Your task to perform on an android device: Set the phone to "Do not disturb". Image 0: 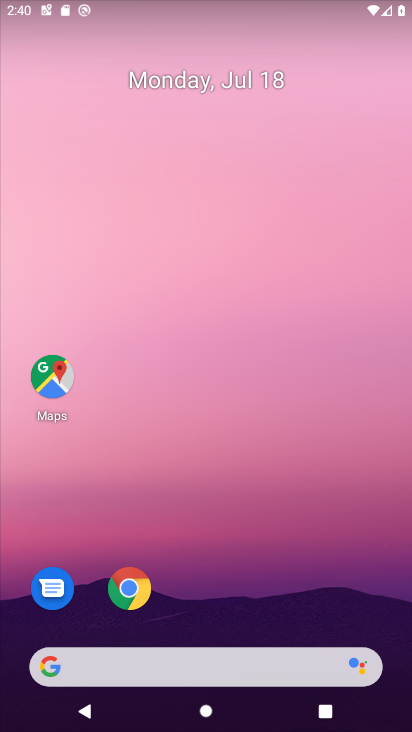
Step 0: drag from (279, 616) to (212, 117)
Your task to perform on an android device: Set the phone to "Do not disturb". Image 1: 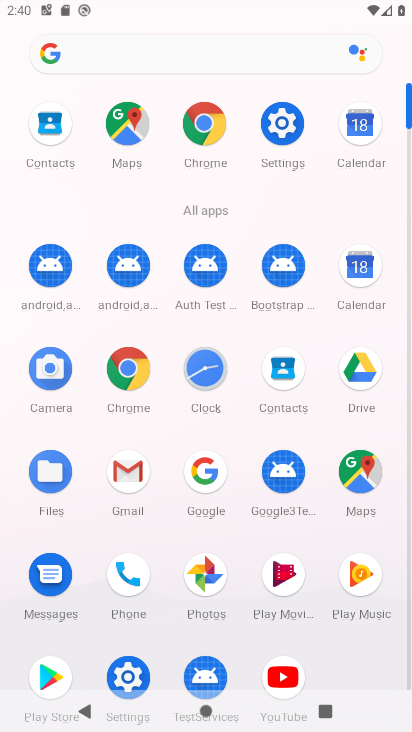
Step 1: click (281, 135)
Your task to perform on an android device: Set the phone to "Do not disturb". Image 2: 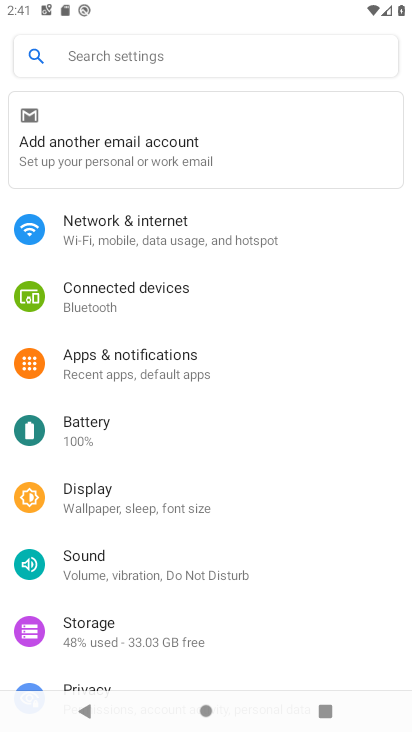
Step 2: click (195, 572)
Your task to perform on an android device: Set the phone to "Do not disturb". Image 3: 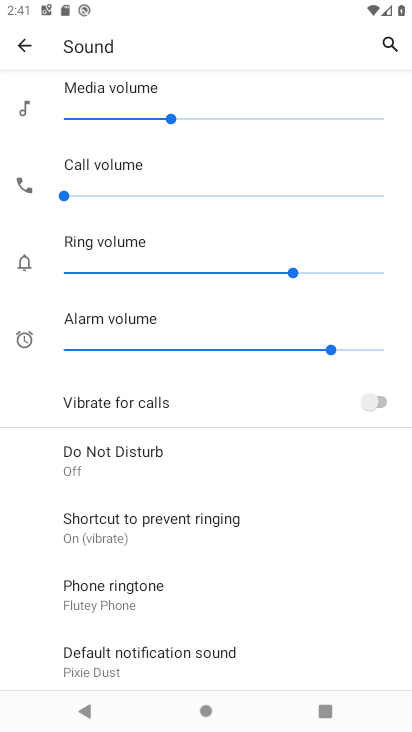
Step 3: click (155, 444)
Your task to perform on an android device: Set the phone to "Do not disturb". Image 4: 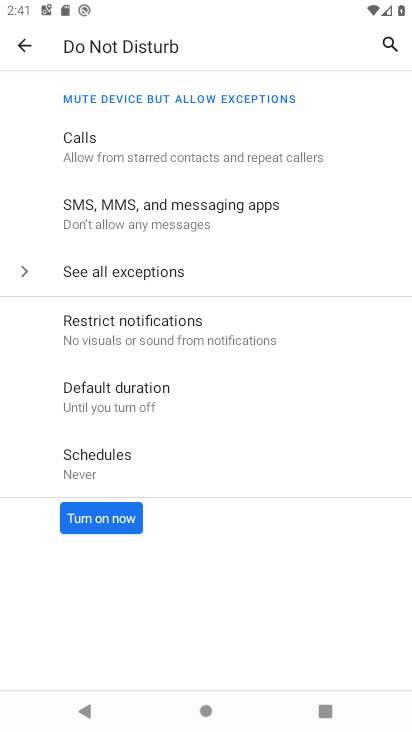
Step 4: click (126, 532)
Your task to perform on an android device: Set the phone to "Do not disturb". Image 5: 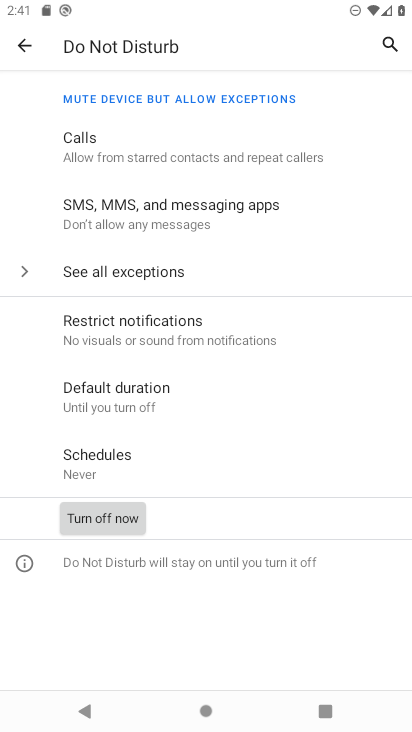
Step 5: task complete